Your task to perform on an android device: Search for Mexican restaurants on Maps Image 0: 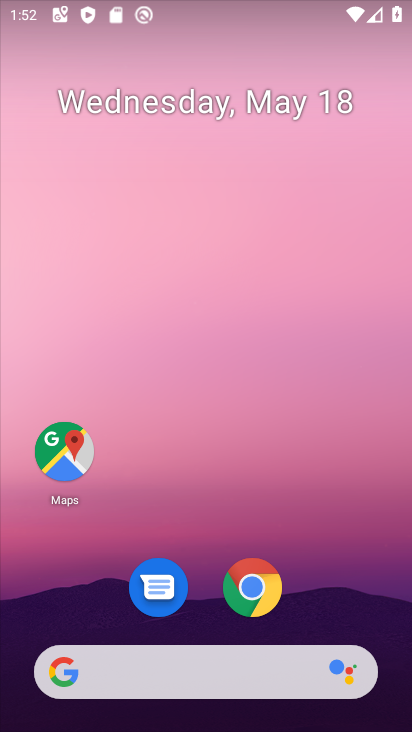
Step 0: click (62, 453)
Your task to perform on an android device: Search for Mexican restaurants on Maps Image 1: 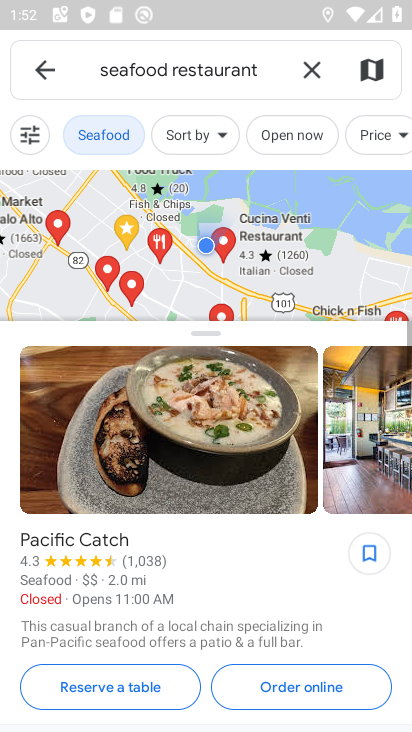
Step 1: click (315, 75)
Your task to perform on an android device: Search for Mexican restaurants on Maps Image 2: 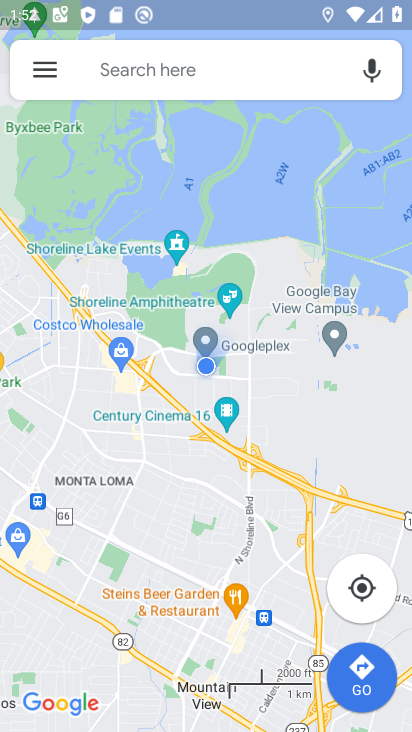
Step 2: click (129, 64)
Your task to perform on an android device: Search for Mexican restaurants on Maps Image 3: 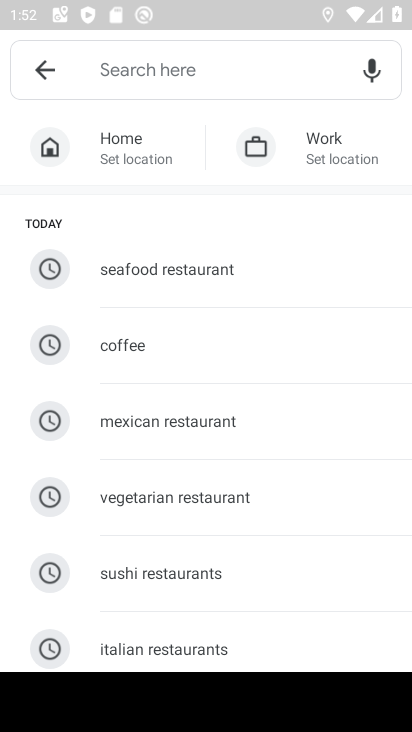
Step 3: type "mexican restaurant"
Your task to perform on an android device: Search for Mexican restaurants on Maps Image 4: 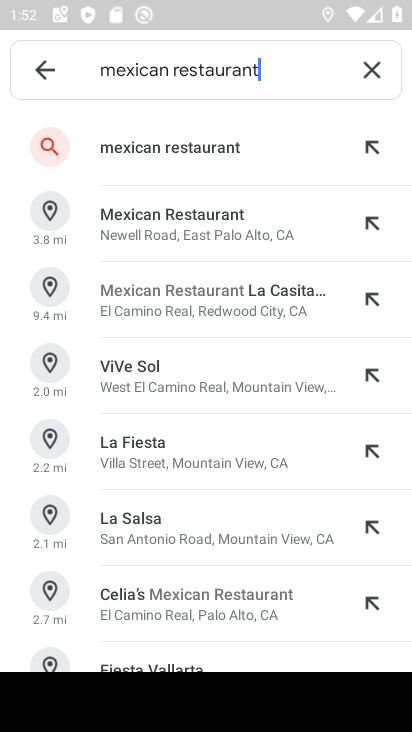
Step 4: click (177, 152)
Your task to perform on an android device: Search for Mexican restaurants on Maps Image 5: 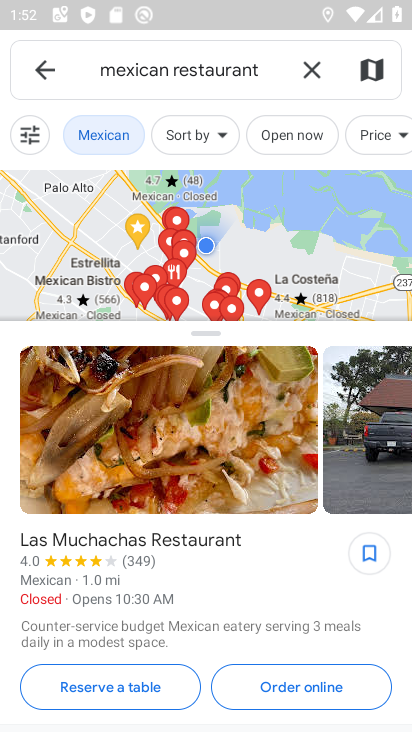
Step 5: task complete